Your task to perform on an android device: find snoozed emails in the gmail app Image 0: 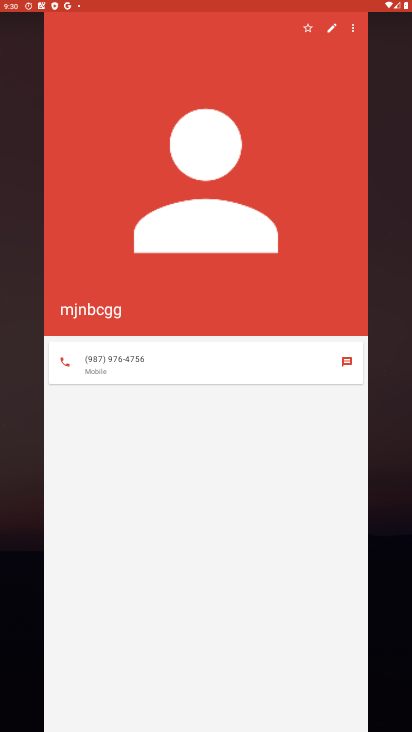
Step 0: press home button
Your task to perform on an android device: find snoozed emails in the gmail app Image 1: 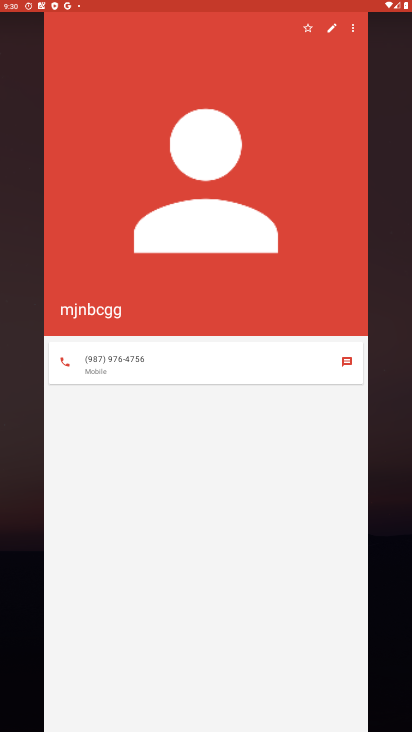
Step 1: press home button
Your task to perform on an android device: find snoozed emails in the gmail app Image 2: 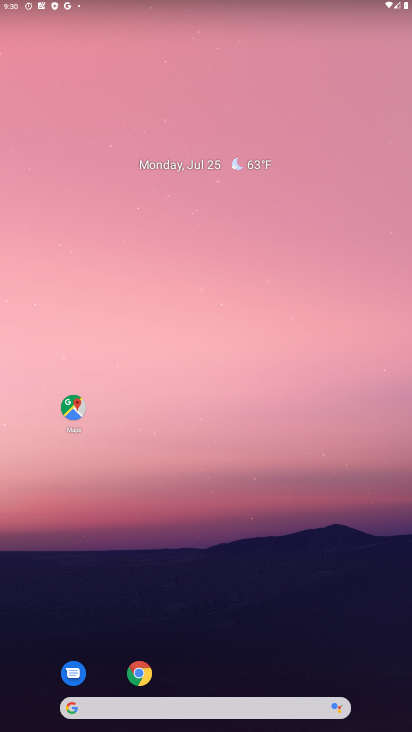
Step 2: drag from (217, 623) to (210, 191)
Your task to perform on an android device: find snoozed emails in the gmail app Image 3: 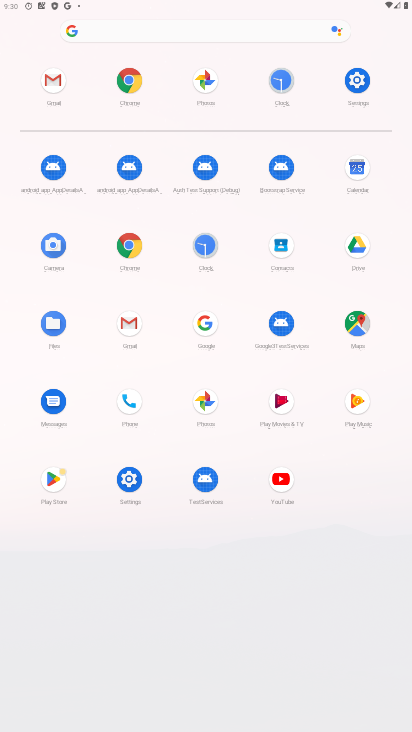
Step 3: click (123, 329)
Your task to perform on an android device: find snoozed emails in the gmail app Image 4: 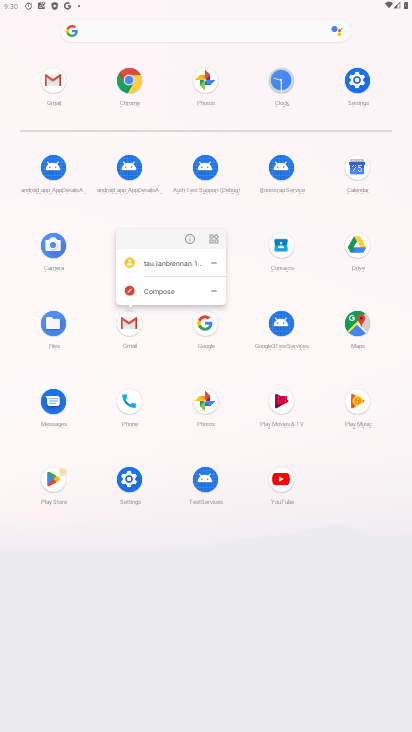
Step 4: click (183, 244)
Your task to perform on an android device: find snoozed emails in the gmail app Image 5: 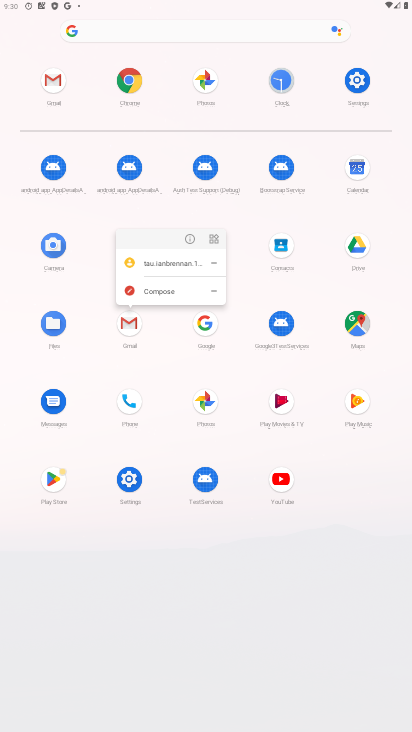
Step 5: click (184, 243)
Your task to perform on an android device: find snoozed emails in the gmail app Image 6: 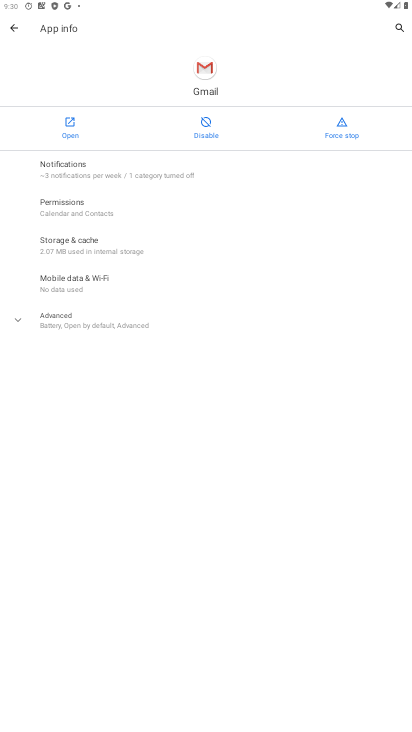
Step 6: click (84, 126)
Your task to perform on an android device: find snoozed emails in the gmail app Image 7: 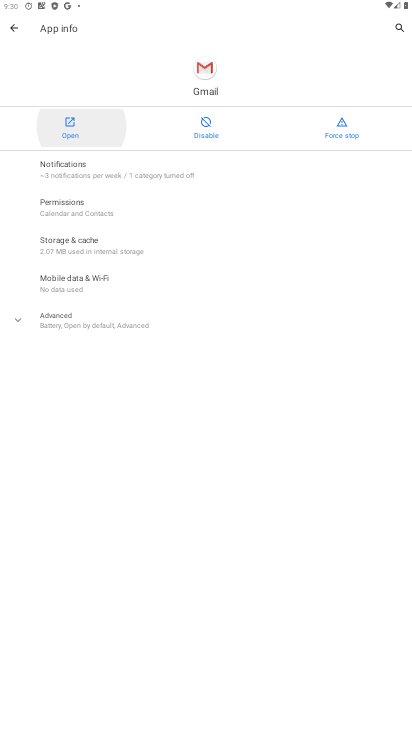
Step 7: click (57, 121)
Your task to perform on an android device: find snoozed emails in the gmail app Image 8: 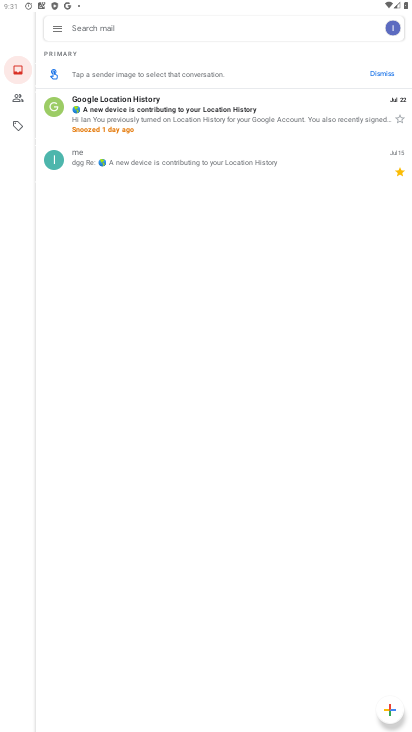
Step 8: click (50, 30)
Your task to perform on an android device: find snoozed emails in the gmail app Image 9: 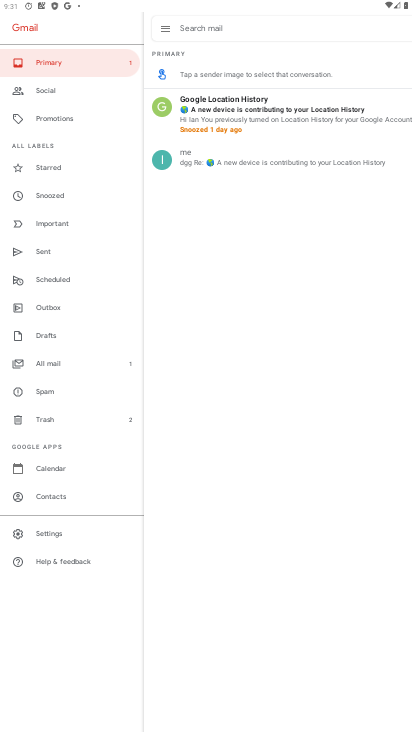
Step 9: click (56, 199)
Your task to perform on an android device: find snoozed emails in the gmail app Image 10: 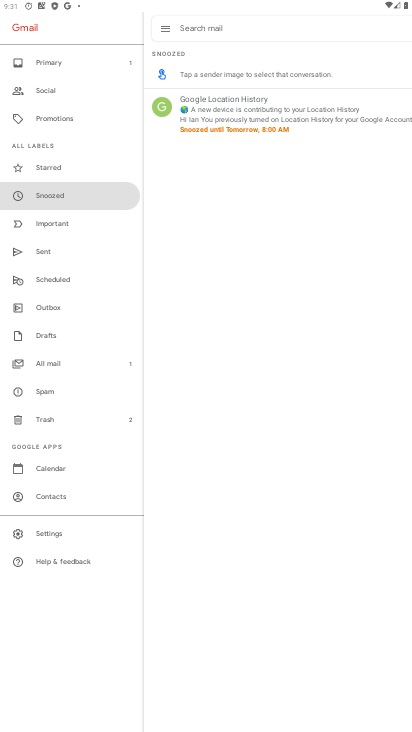
Step 10: click (45, 204)
Your task to perform on an android device: find snoozed emails in the gmail app Image 11: 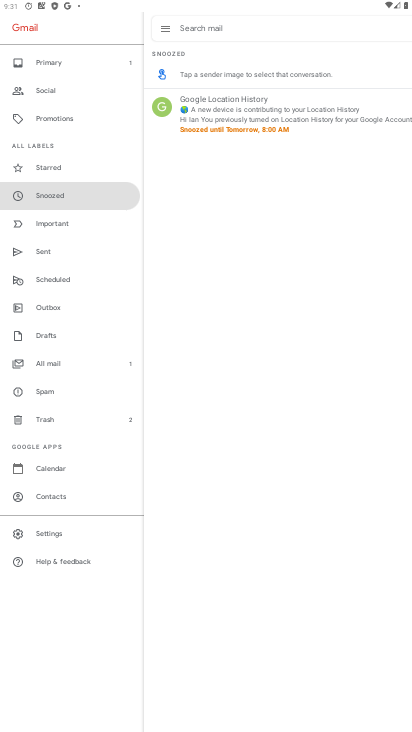
Step 11: task complete